Your task to perform on an android device: Open display settings Image 0: 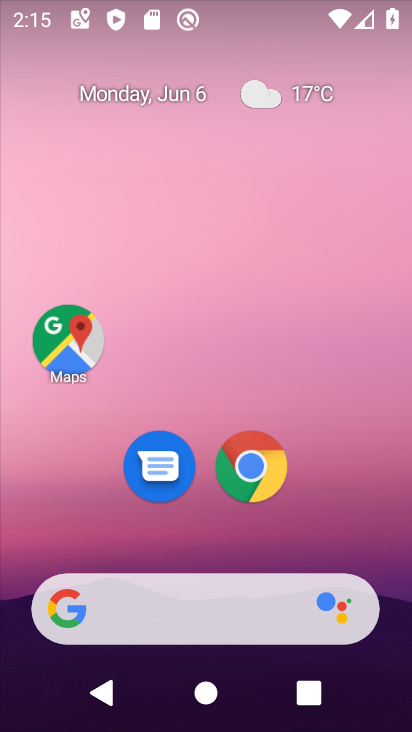
Step 0: drag from (267, 548) to (194, 7)
Your task to perform on an android device: Open display settings Image 1: 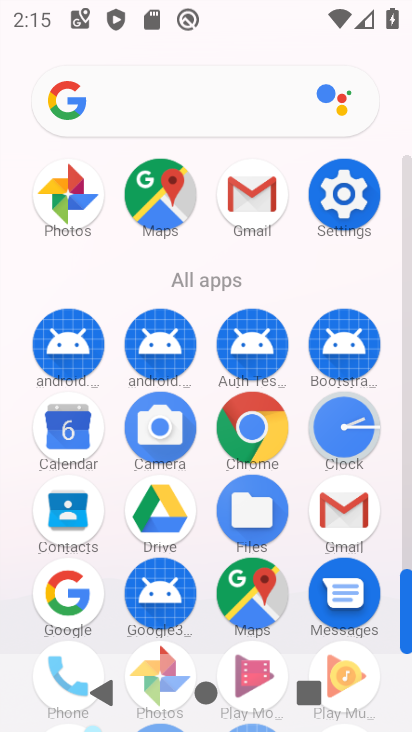
Step 1: click (346, 197)
Your task to perform on an android device: Open display settings Image 2: 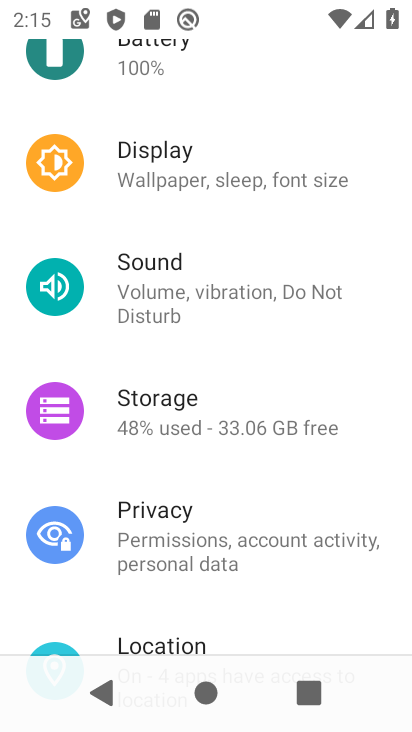
Step 2: click (167, 183)
Your task to perform on an android device: Open display settings Image 3: 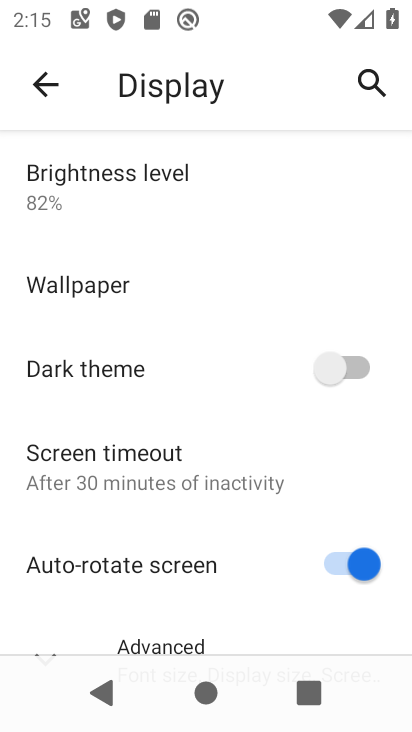
Step 3: task complete